Your task to perform on an android device: turn on airplane mode Image 0: 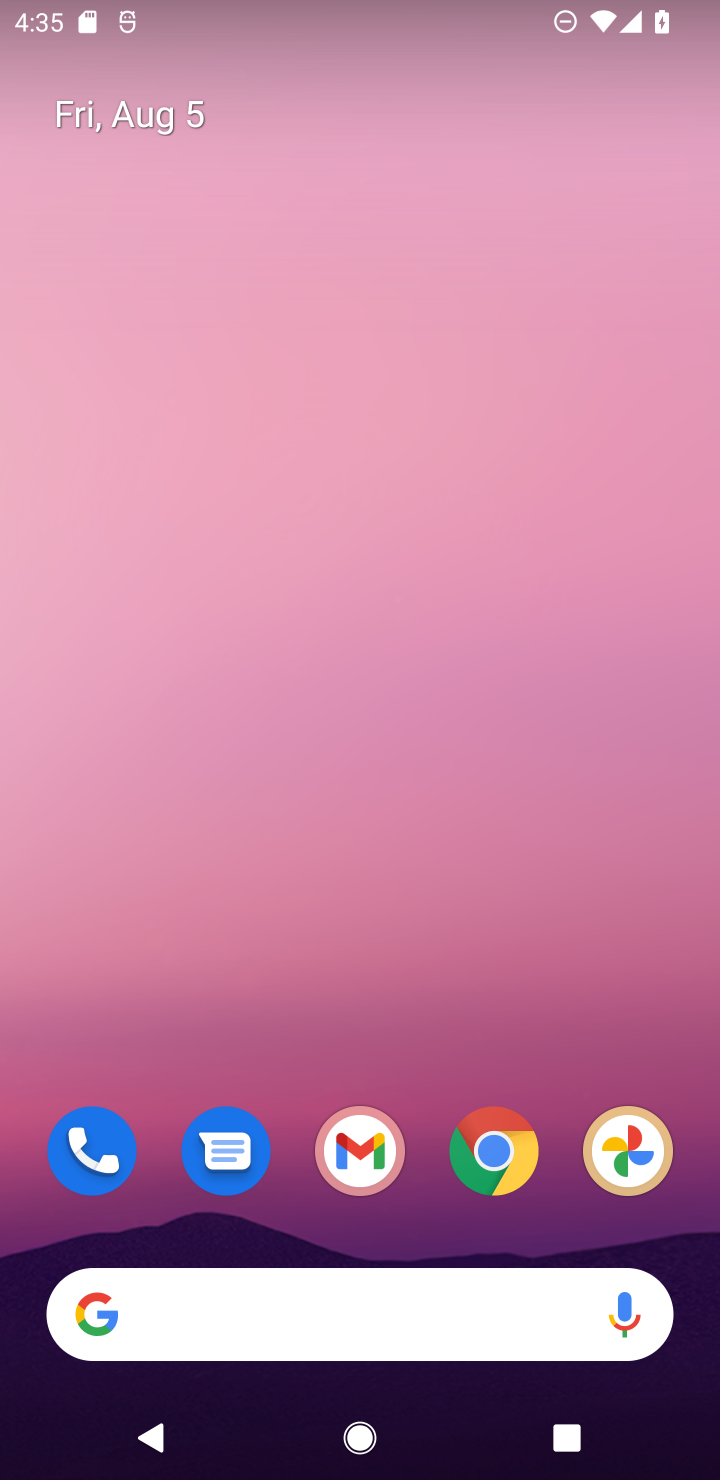
Step 0: drag from (448, 1045) to (435, 513)
Your task to perform on an android device: turn on airplane mode Image 1: 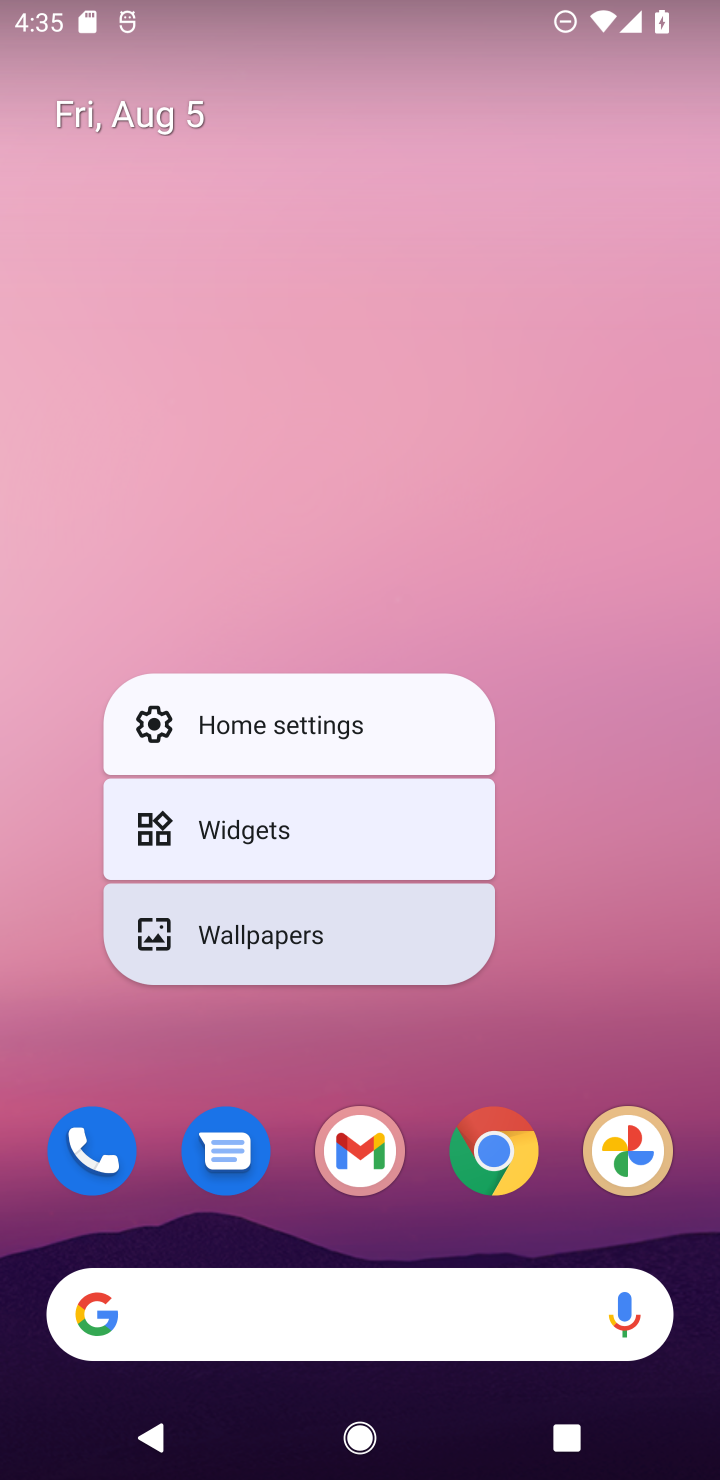
Step 1: click (435, 513)
Your task to perform on an android device: turn on airplane mode Image 2: 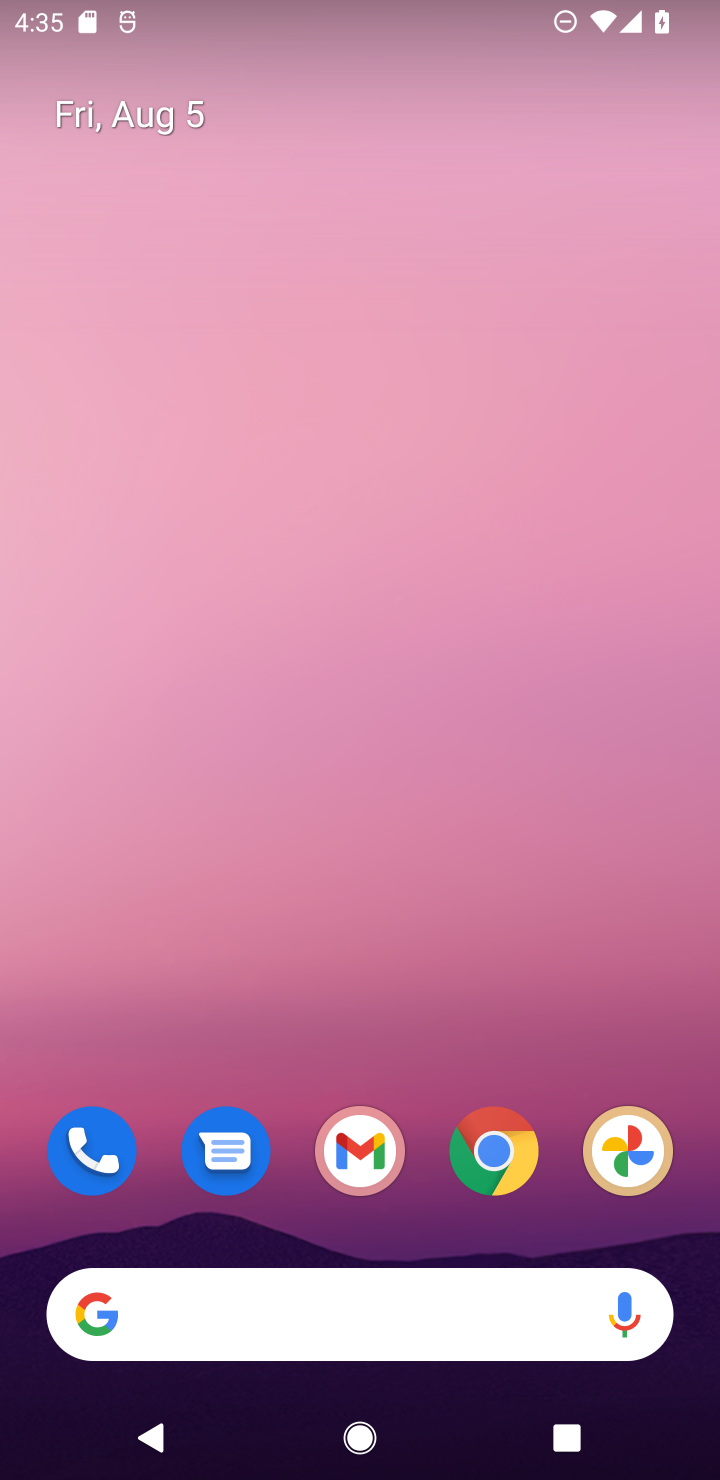
Step 2: drag from (303, 523) to (217, 38)
Your task to perform on an android device: turn on airplane mode Image 3: 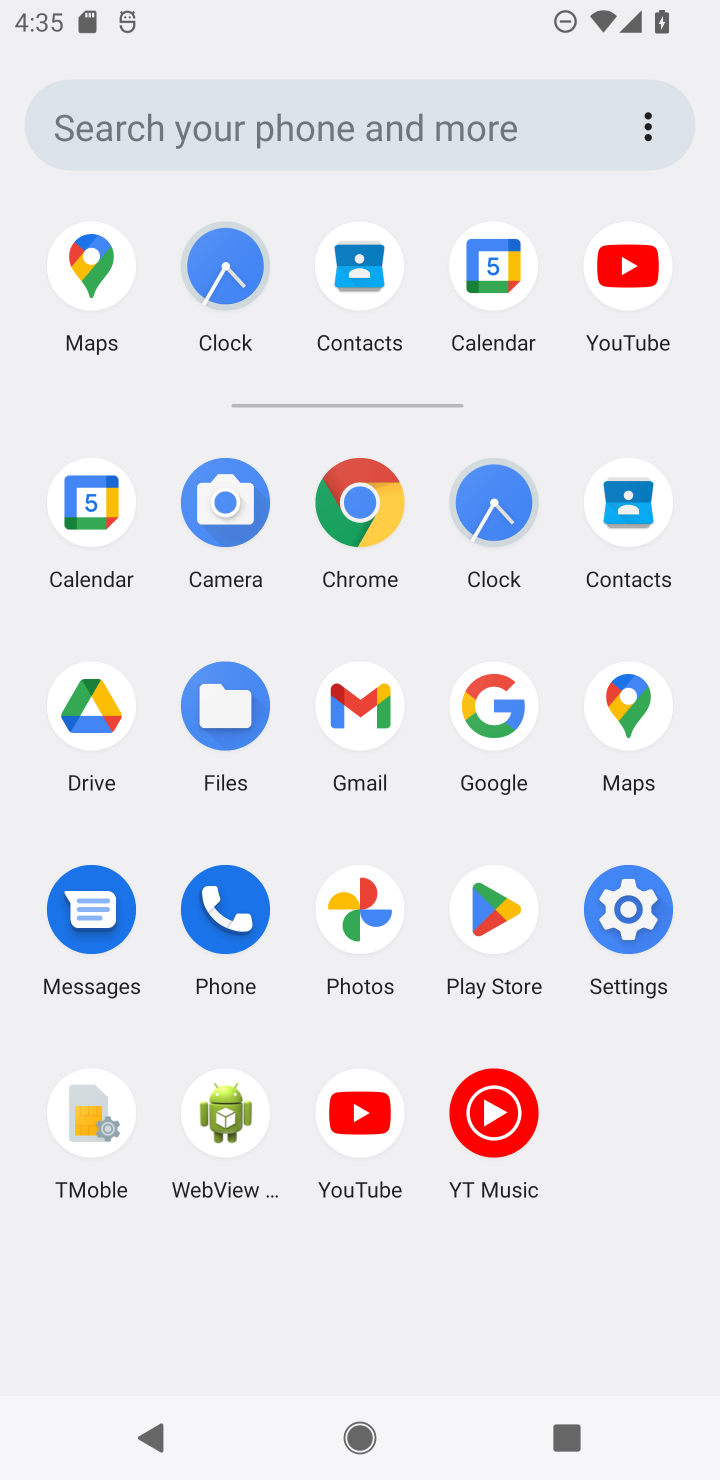
Step 3: click (661, 909)
Your task to perform on an android device: turn on airplane mode Image 4: 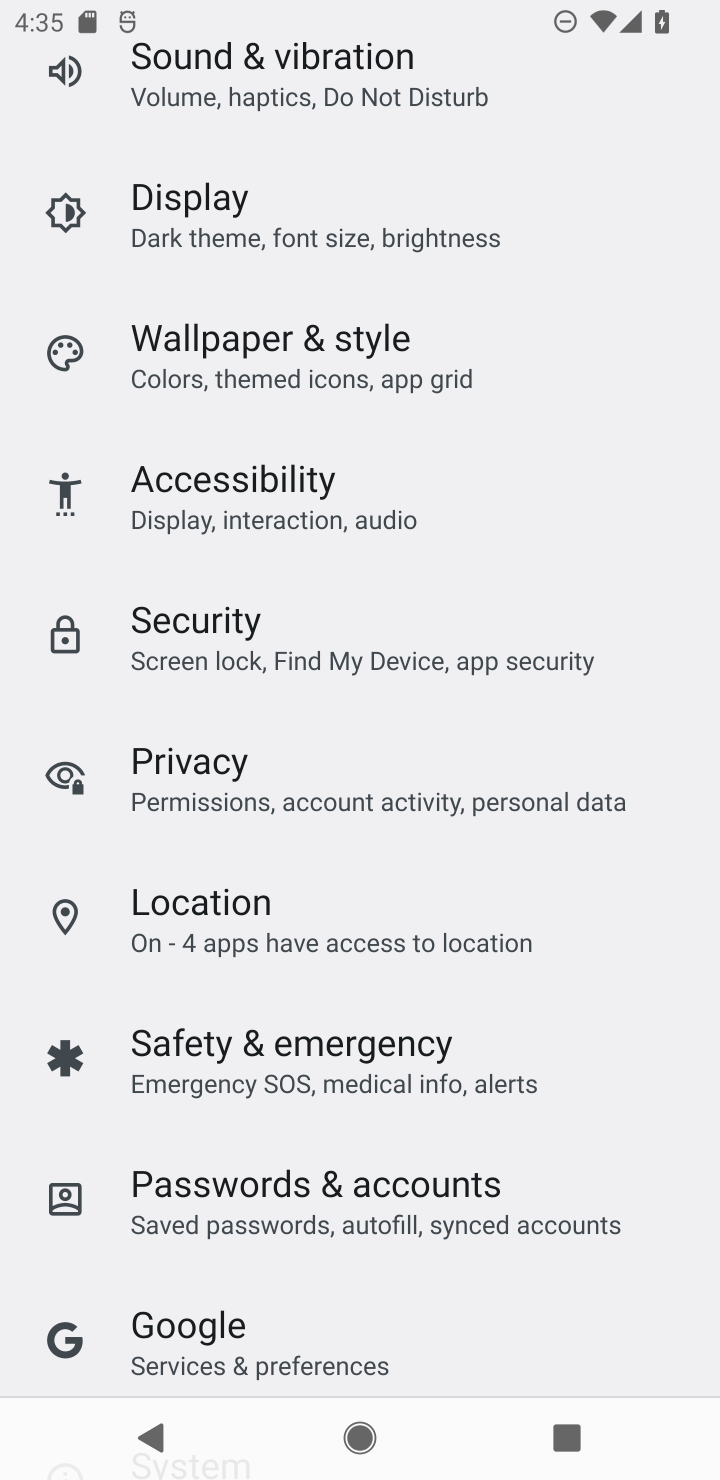
Step 4: drag from (389, 256) to (446, 1400)
Your task to perform on an android device: turn on airplane mode Image 5: 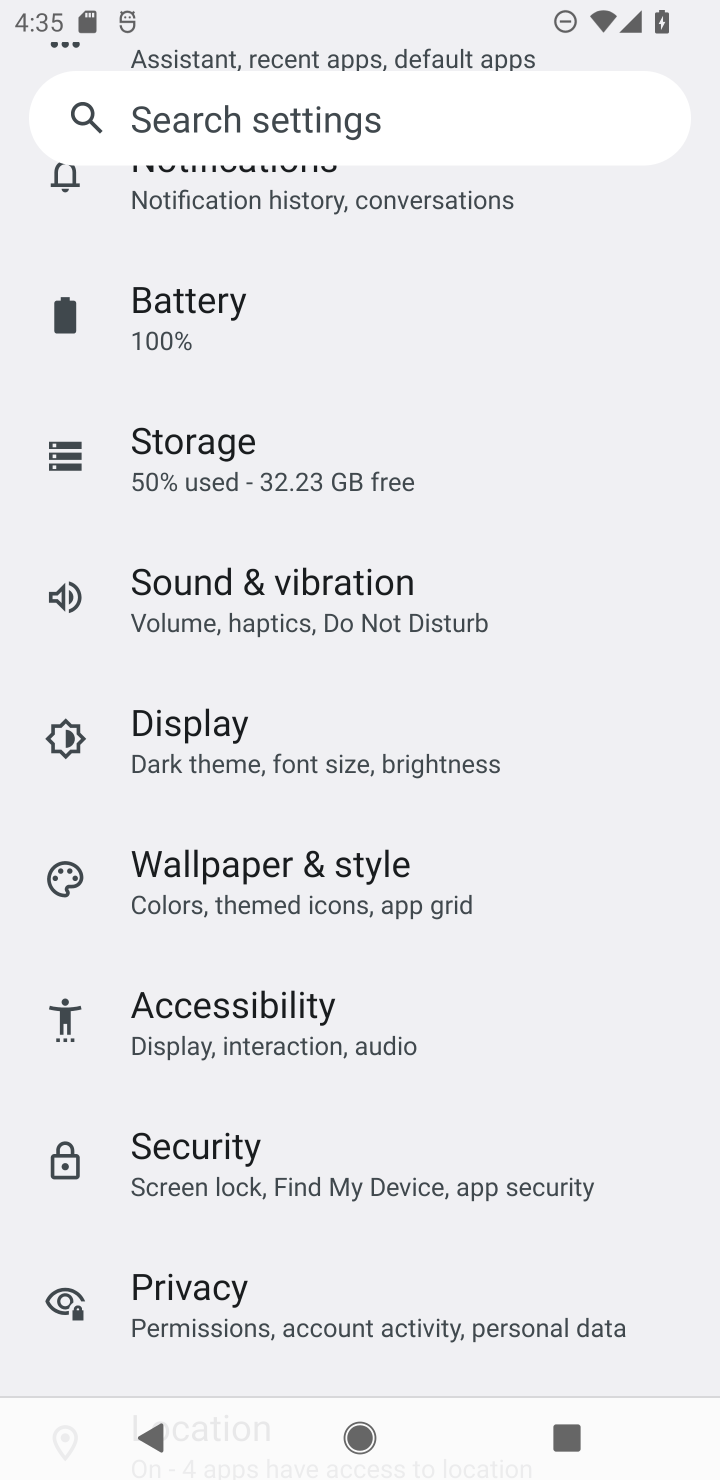
Step 5: drag from (414, 230) to (543, 1373)
Your task to perform on an android device: turn on airplane mode Image 6: 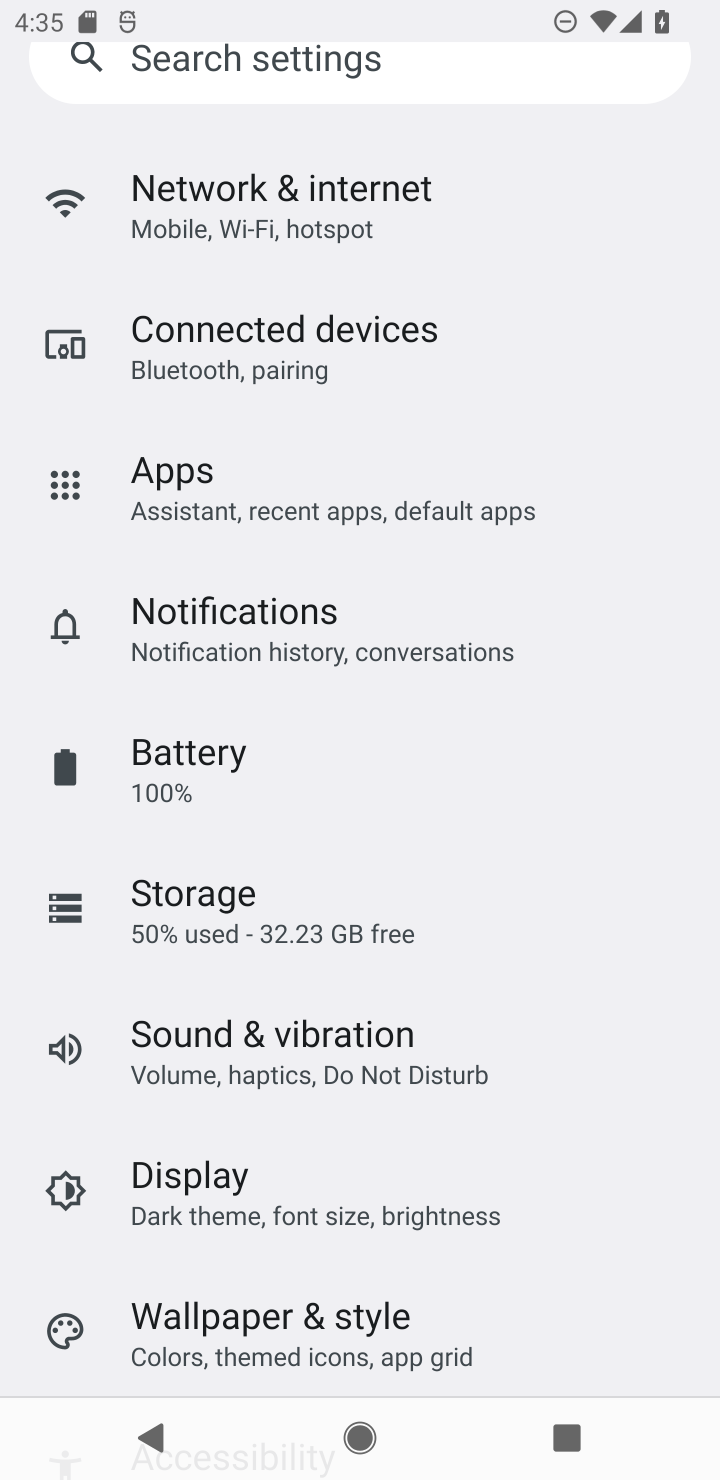
Step 6: click (429, 238)
Your task to perform on an android device: turn on airplane mode Image 7: 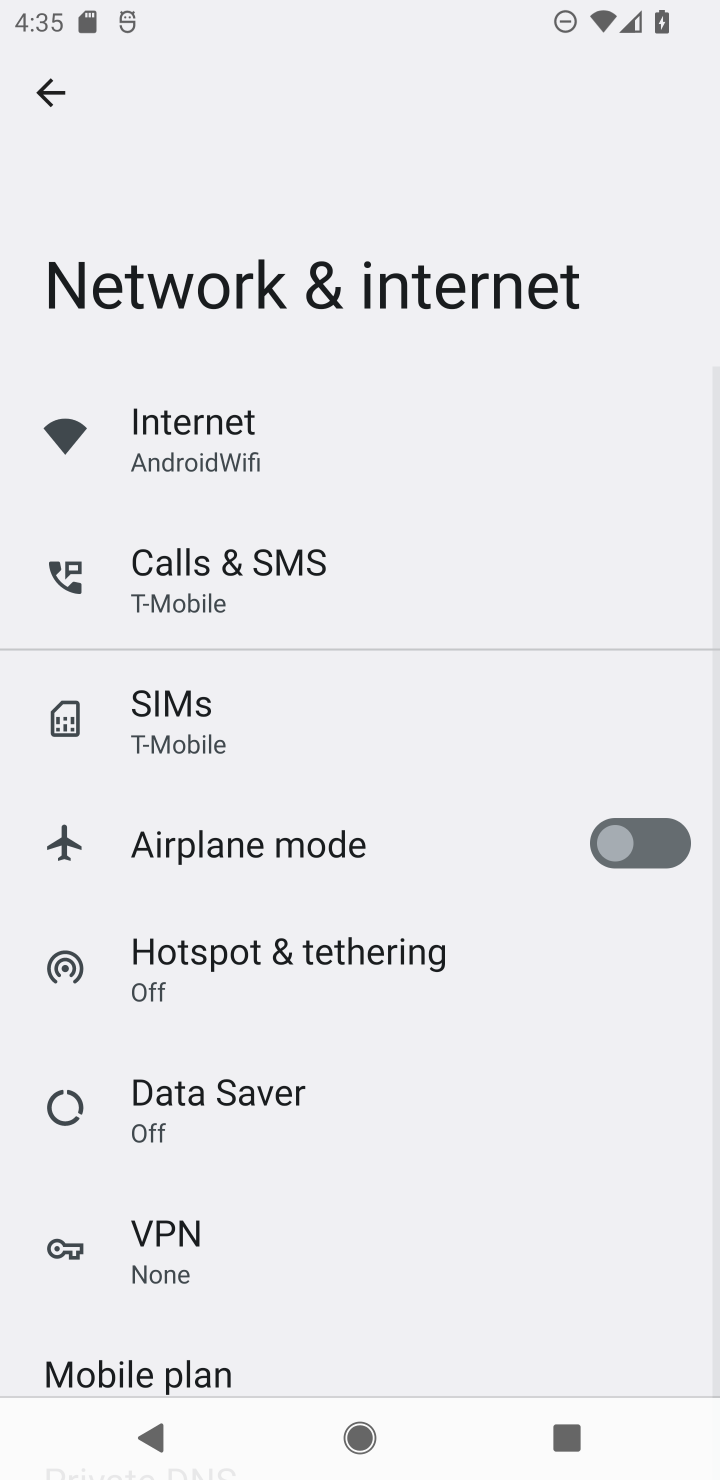
Step 7: click (626, 857)
Your task to perform on an android device: turn on airplane mode Image 8: 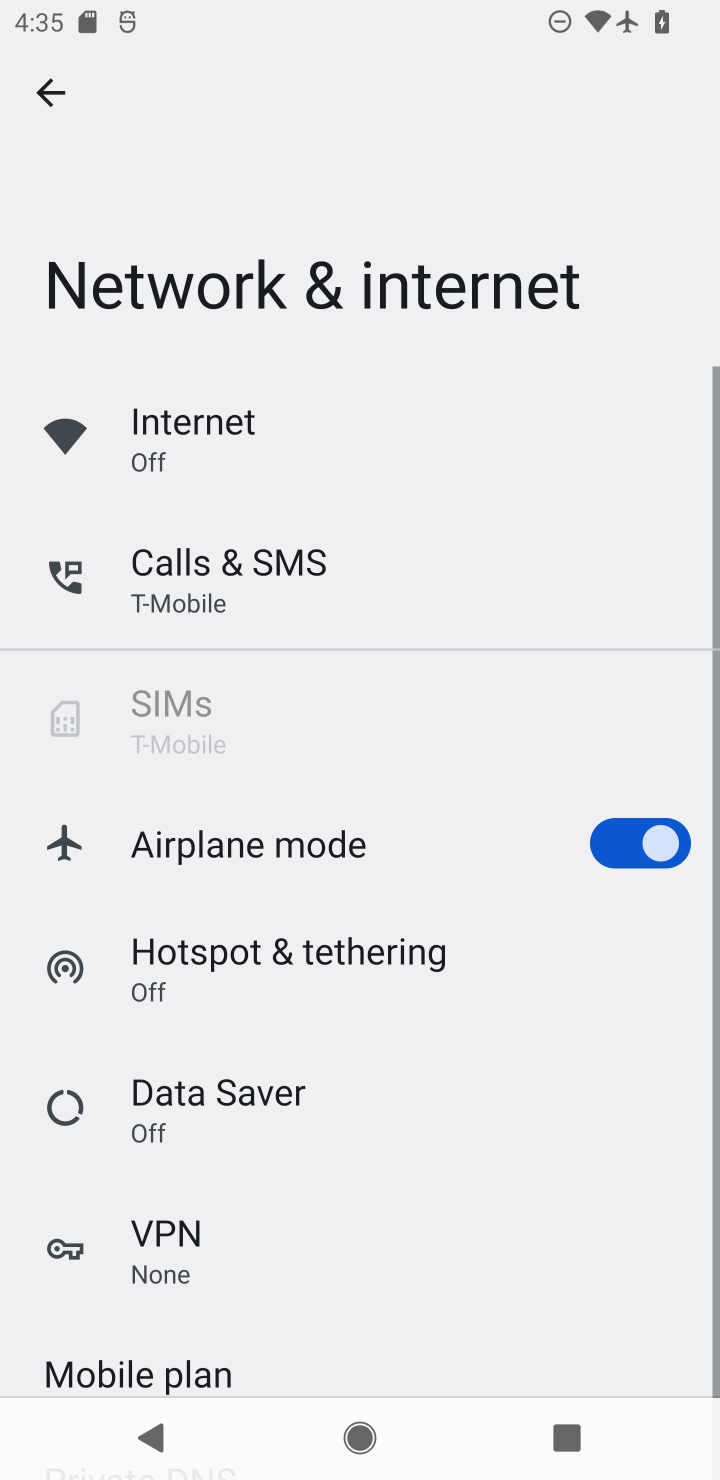
Step 8: task complete